Your task to perform on an android device: empty trash in the gmail app Image 0: 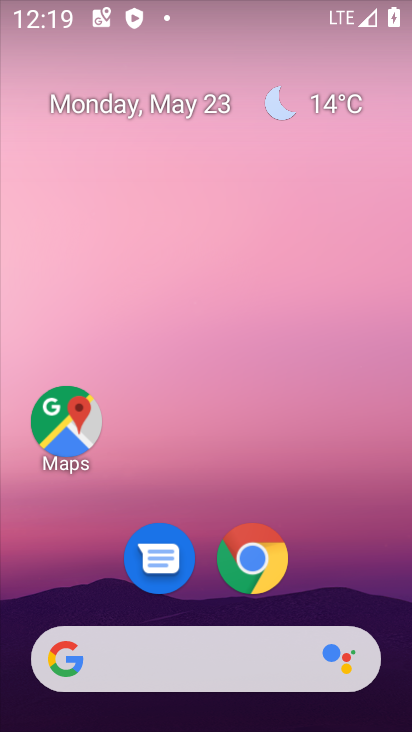
Step 0: drag from (342, 603) to (378, 1)
Your task to perform on an android device: empty trash in the gmail app Image 1: 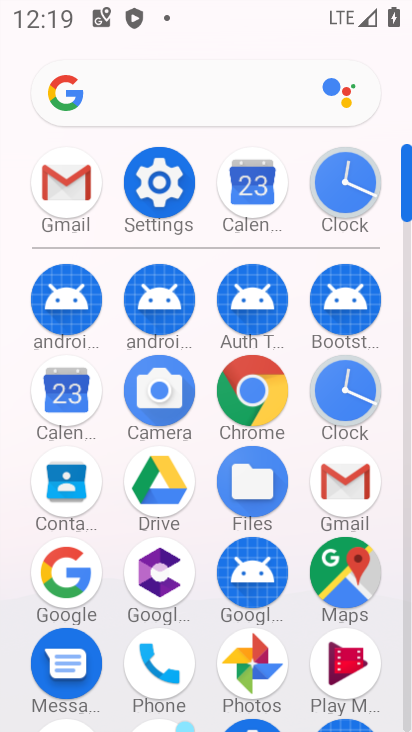
Step 1: click (70, 189)
Your task to perform on an android device: empty trash in the gmail app Image 2: 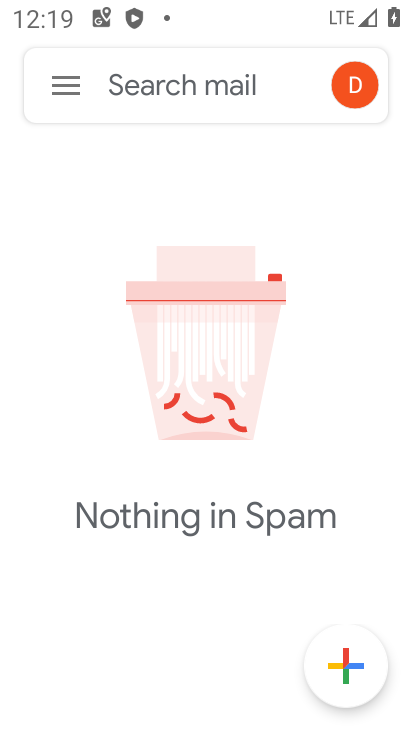
Step 2: click (69, 88)
Your task to perform on an android device: empty trash in the gmail app Image 3: 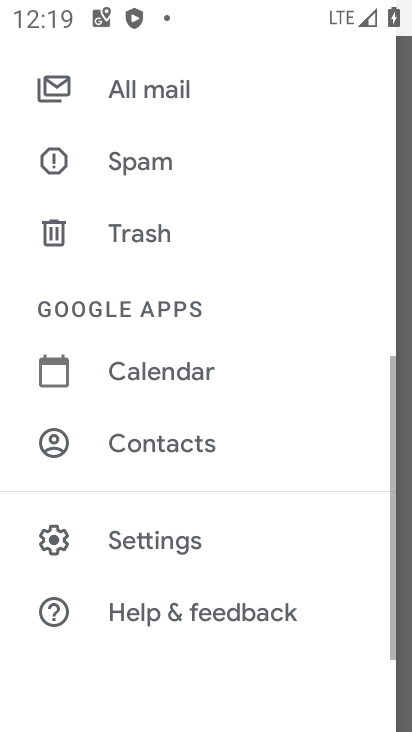
Step 3: click (127, 239)
Your task to perform on an android device: empty trash in the gmail app Image 4: 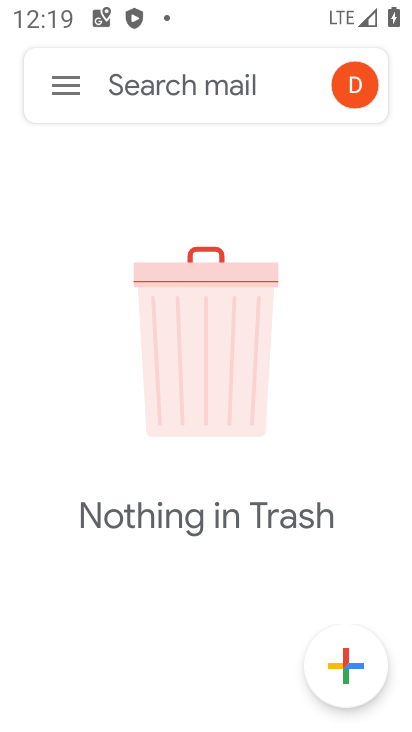
Step 4: task complete